Your task to perform on an android device: Open the calendar app, open the side menu, and click the "Day" option Image 0: 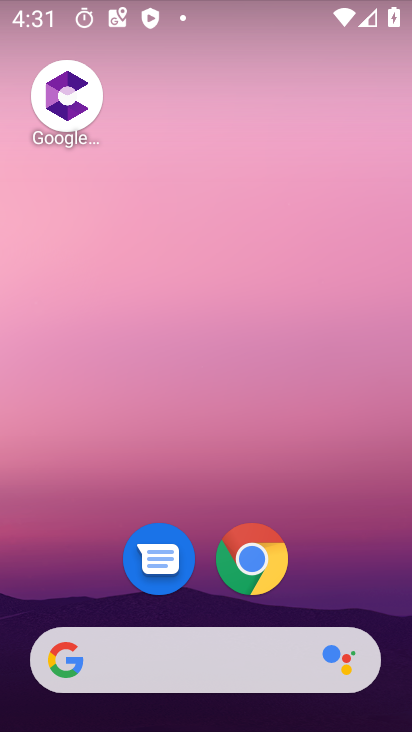
Step 0: drag from (342, 516) to (161, 4)
Your task to perform on an android device: Open the calendar app, open the side menu, and click the "Day" option Image 1: 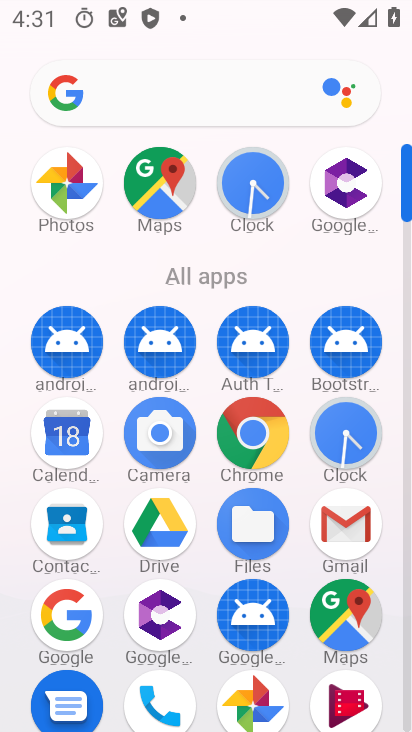
Step 1: click (77, 451)
Your task to perform on an android device: Open the calendar app, open the side menu, and click the "Day" option Image 2: 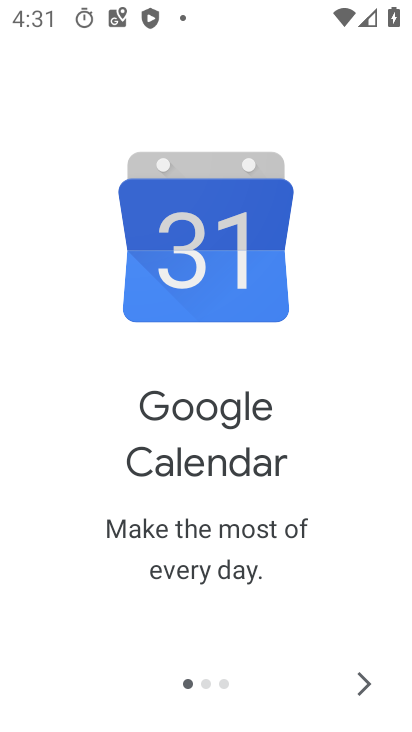
Step 2: click (361, 685)
Your task to perform on an android device: Open the calendar app, open the side menu, and click the "Day" option Image 3: 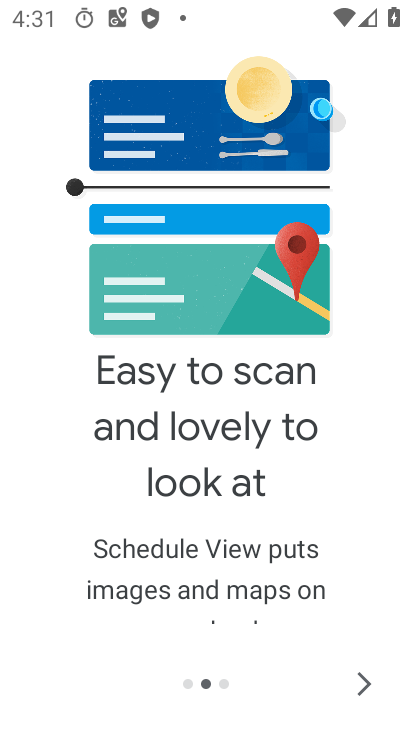
Step 3: click (362, 684)
Your task to perform on an android device: Open the calendar app, open the side menu, and click the "Day" option Image 4: 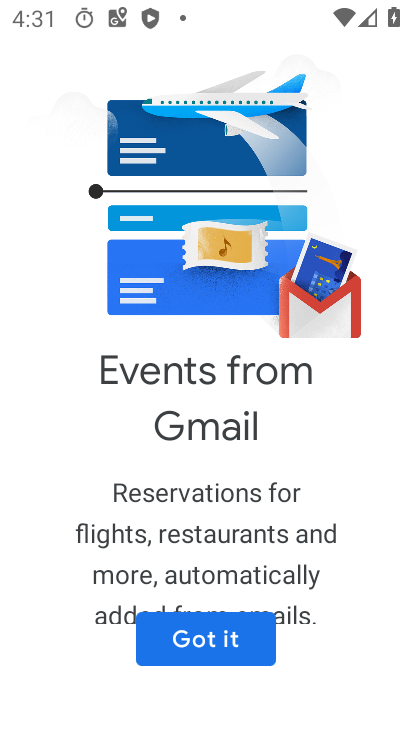
Step 4: click (238, 647)
Your task to perform on an android device: Open the calendar app, open the side menu, and click the "Day" option Image 5: 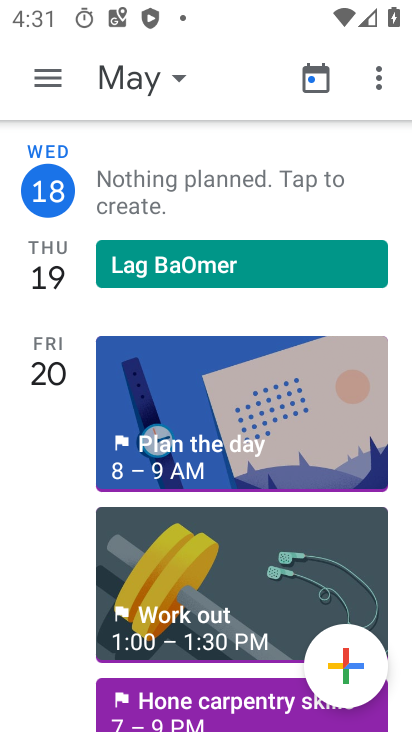
Step 5: click (53, 75)
Your task to perform on an android device: Open the calendar app, open the side menu, and click the "Day" option Image 6: 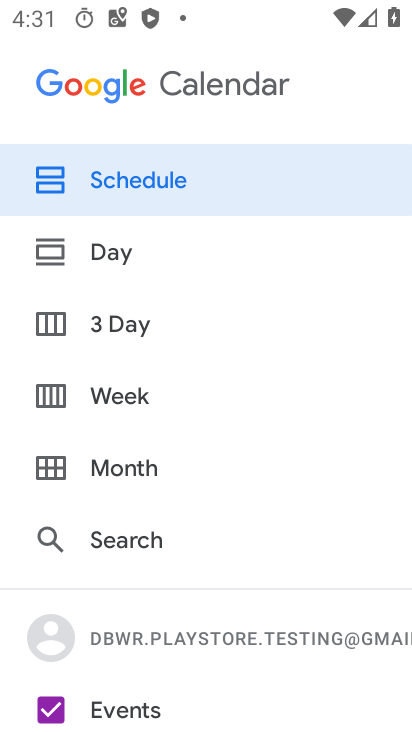
Step 6: click (135, 254)
Your task to perform on an android device: Open the calendar app, open the side menu, and click the "Day" option Image 7: 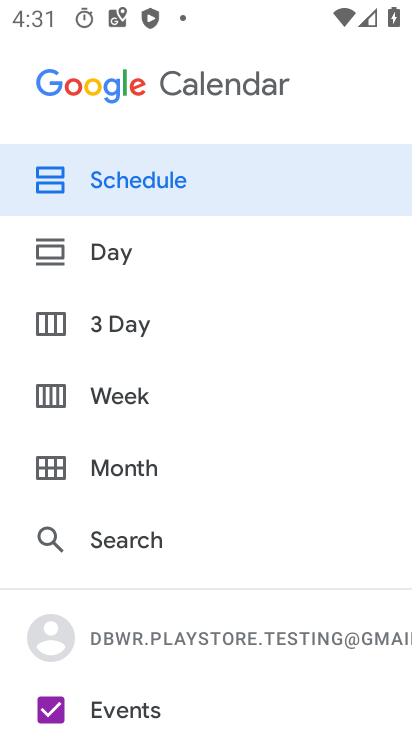
Step 7: click (81, 238)
Your task to perform on an android device: Open the calendar app, open the side menu, and click the "Day" option Image 8: 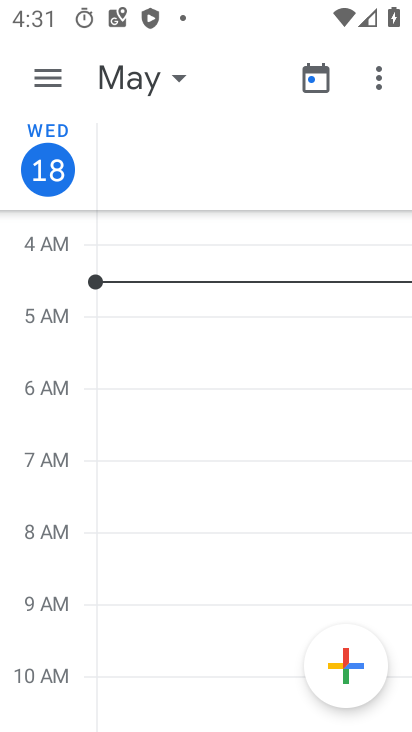
Step 8: task complete